Your task to perform on an android device: stop showing notifications on the lock screen Image 0: 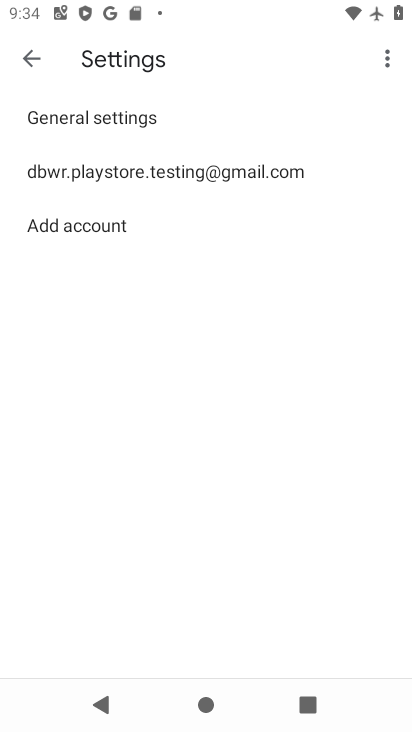
Step 0: press home button
Your task to perform on an android device: stop showing notifications on the lock screen Image 1: 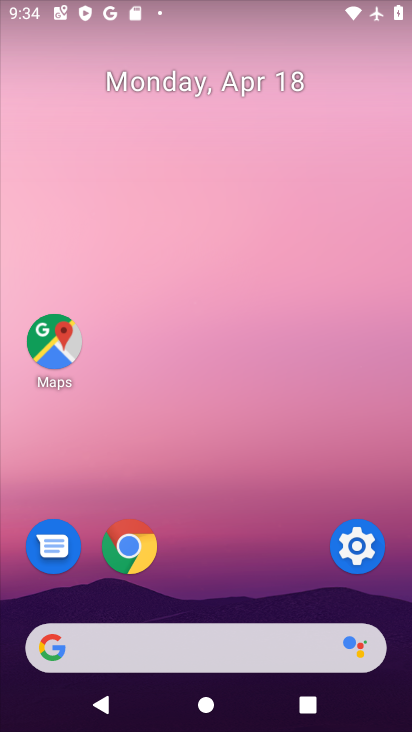
Step 1: click (341, 559)
Your task to perform on an android device: stop showing notifications on the lock screen Image 2: 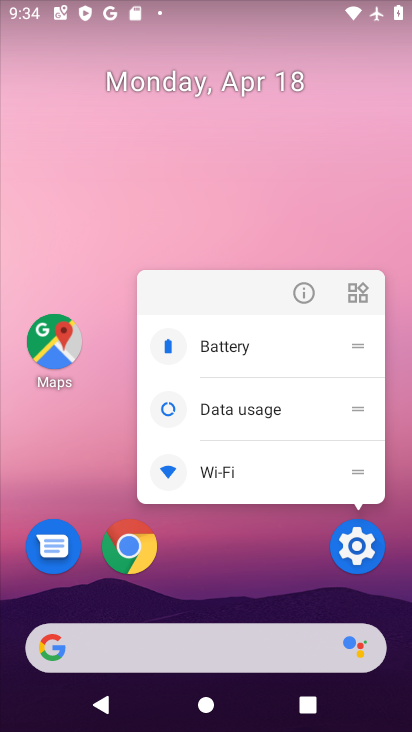
Step 2: click (354, 554)
Your task to perform on an android device: stop showing notifications on the lock screen Image 3: 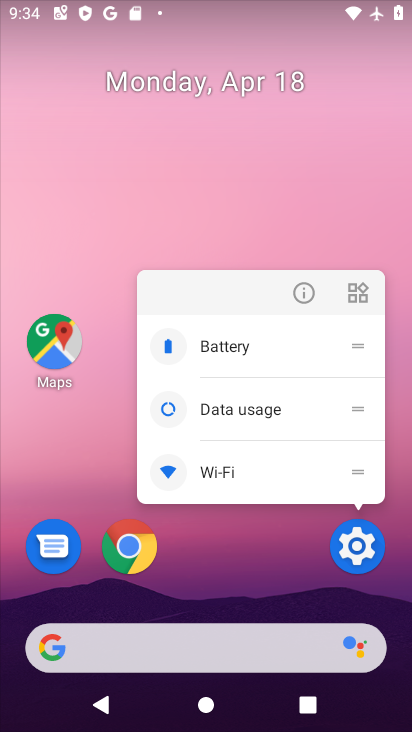
Step 3: click (351, 546)
Your task to perform on an android device: stop showing notifications on the lock screen Image 4: 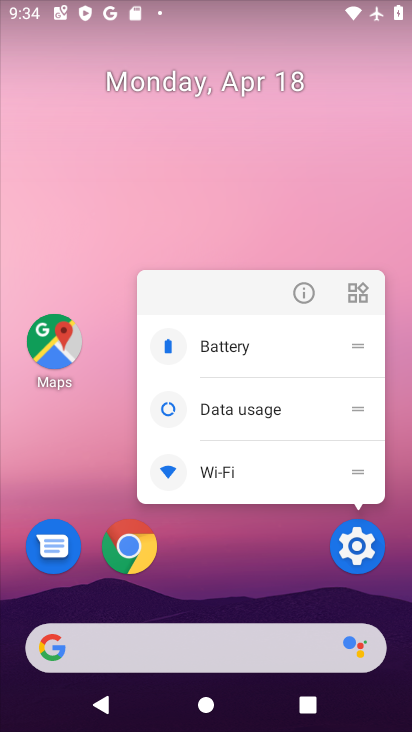
Step 4: click (354, 558)
Your task to perform on an android device: stop showing notifications on the lock screen Image 5: 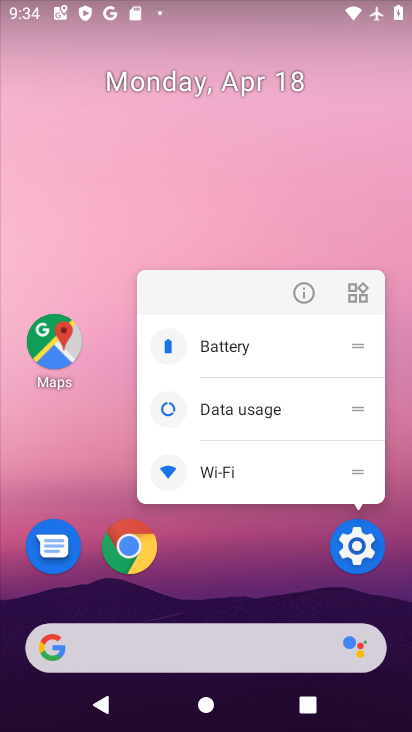
Step 5: click (354, 558)
Your task to perform on an android device: stop showing notifications on the lock screen Image 6: 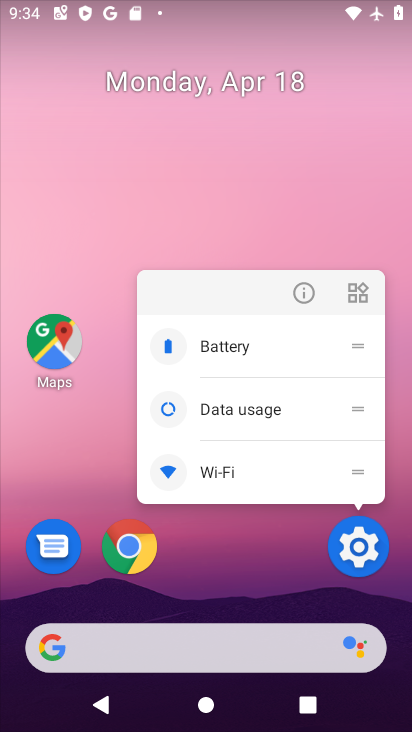
Step 6: click (354, 558)
Your task to perform on an android device: stop showing notifications on the lock screen Image 7: 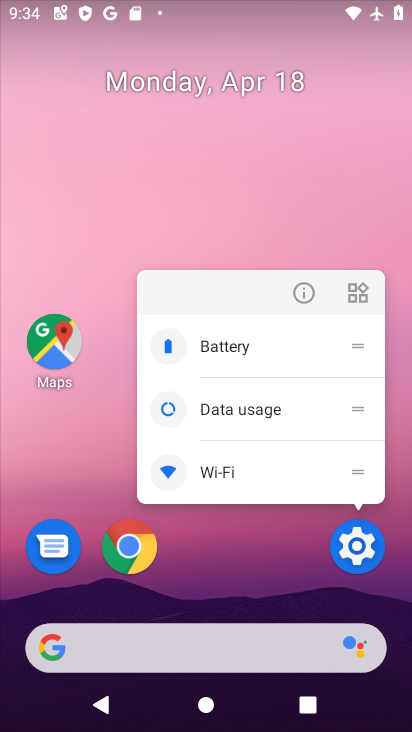
Step 7: click (354, 558)
Your task to perform on an android device: stop showing notifications on the lock screen Image 8: 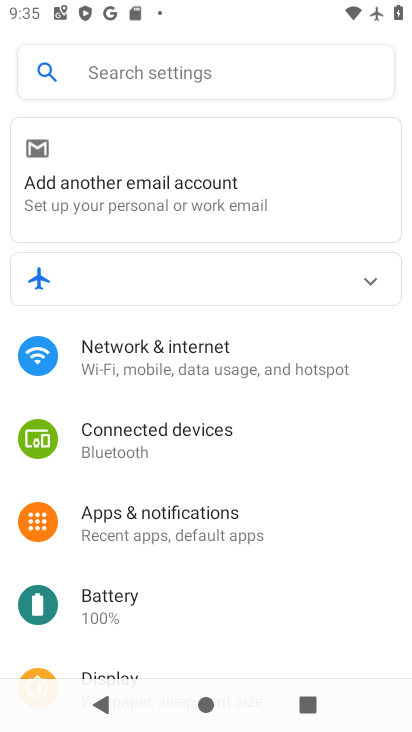
Step 8: drag from (209, 571) to (200, 487)
Your task to perform on an android device: stop showing notifications on the lock screen Image 9: 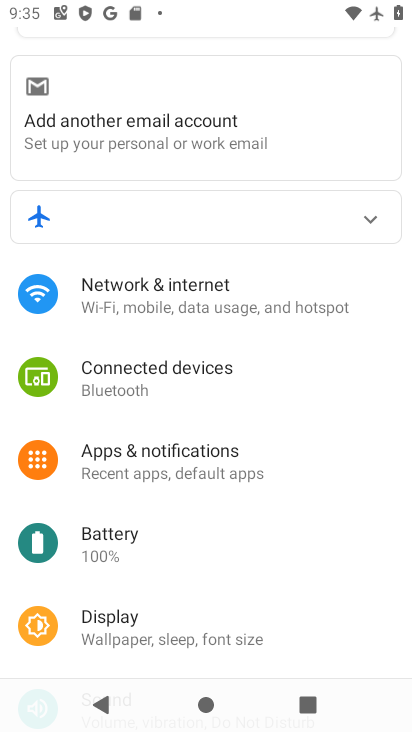
Step 9: click (199, 474)
Your task to perform on an android device: stop showing notifications on the lock screen Image 10: 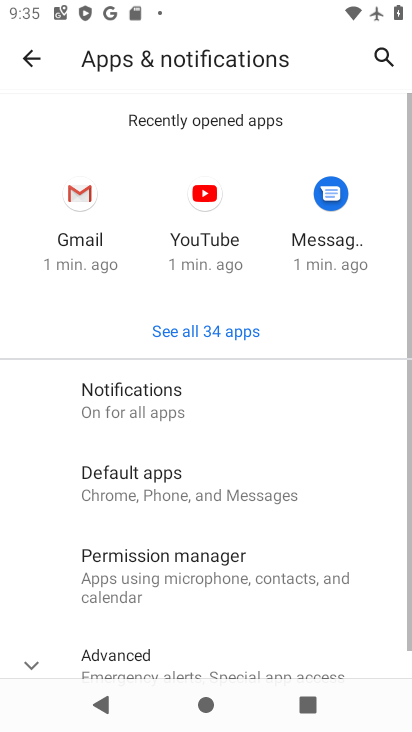
Step 10: click (190, 412)
Your task to perform on an android device: stop showing notifications on the lock screen Image 11: 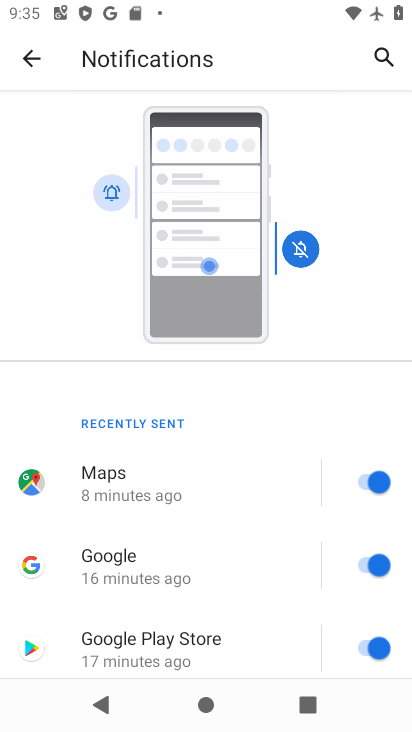
Step 11: drag from (252, 598) to (220, 322)
Your task to perform on an android device: stop showing notifications on the lock screen Image 12: 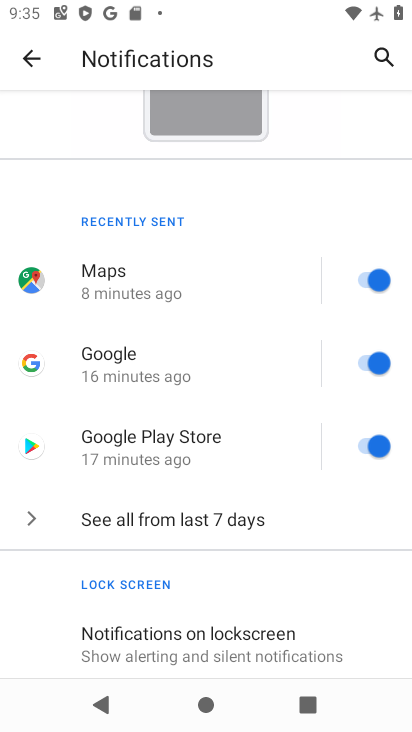
Step 12: click (226, 654)
Your task to perform on an android device: stop showing notifications on the lock screen Image 13: 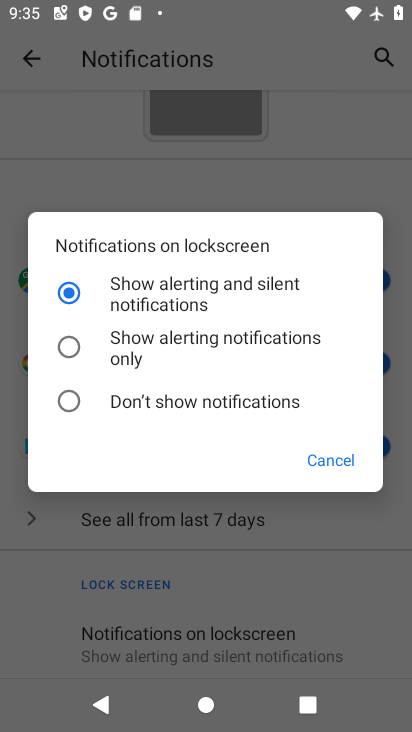
Step 13: click (221, 408)
Your task to perform on an android device: stop showing notifications on the lock screen Image 14: 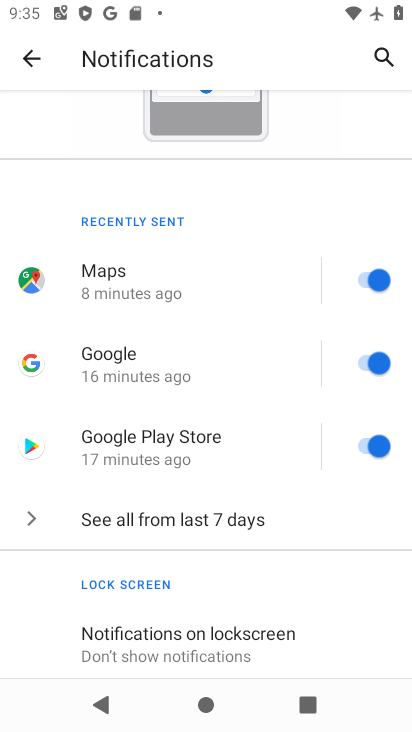
Step 14: task complete